Your task to perform on an android device: Go to eBay Image 0: 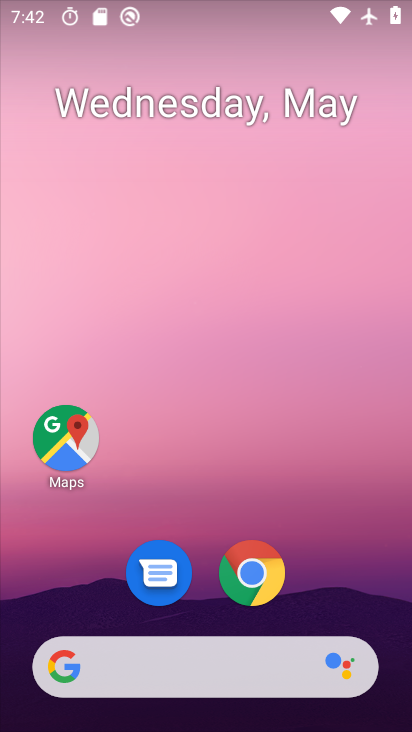
Step 0: click (269, 573)
Your task to perform on an android device: Go to eBay Image 1: 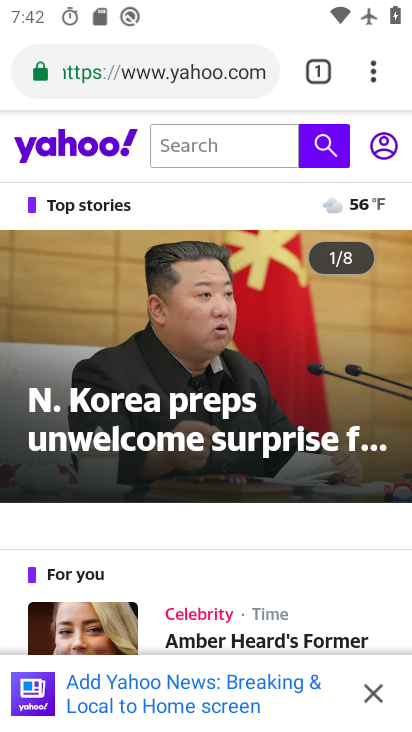
Step 1: click (151, 80)
Your task to perform on an android device: Go to eBay Image 2: 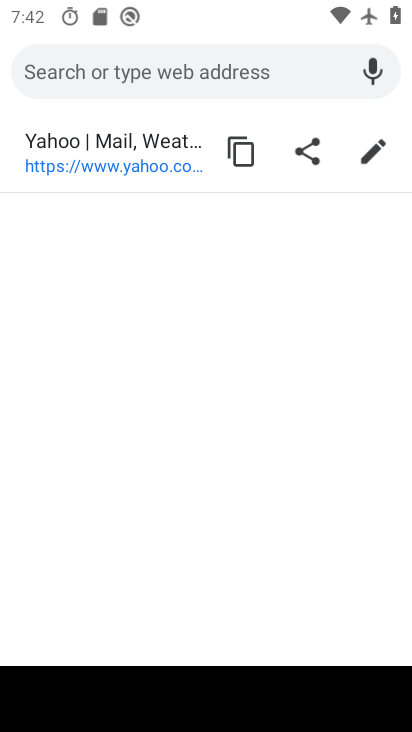
Step 2: type "ebay"
Your task to perform on an android device: Go to eBay Image 3: 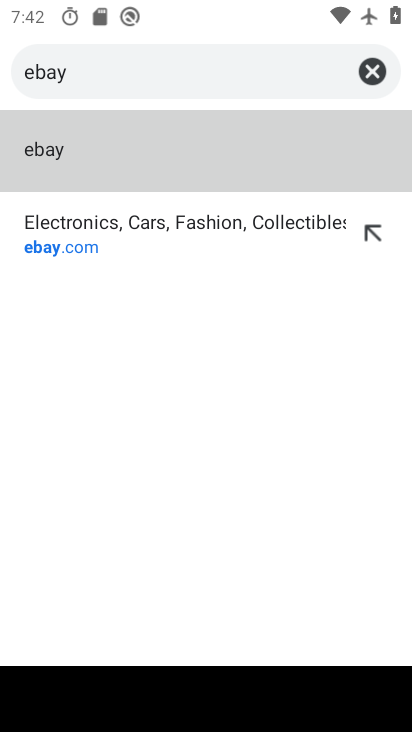
Step 3: click (55, 147)
Your task to perform on an android device: Go to eBay Image 4: 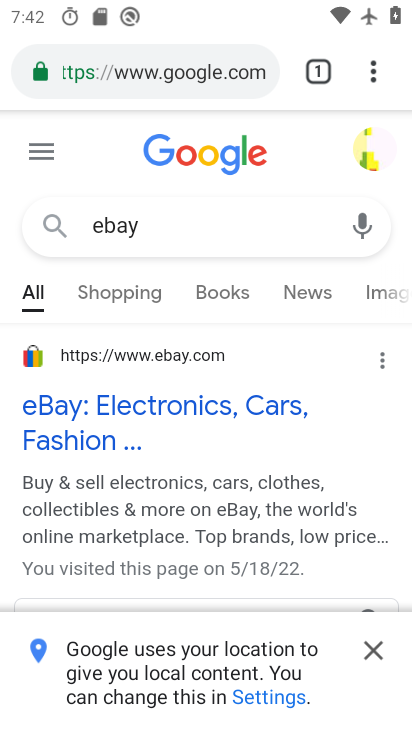
Step 4: click (157, 400)
Your task to perform on an android device: Go to eBay Image 5: 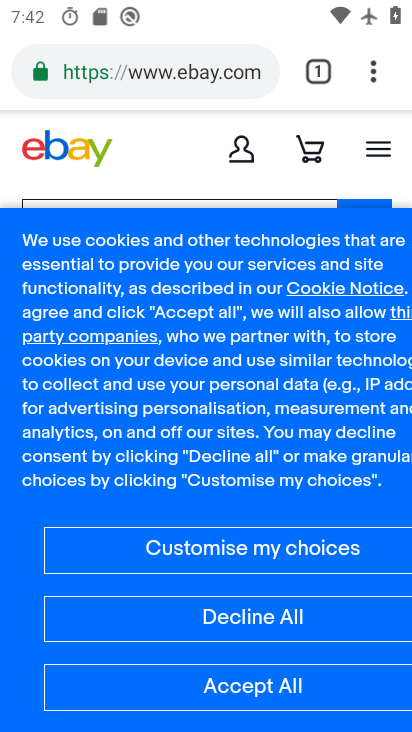
Step 5: task complete